Your task to perform on an android device: open app "Pandora - Music & Podcasts" Image 0: 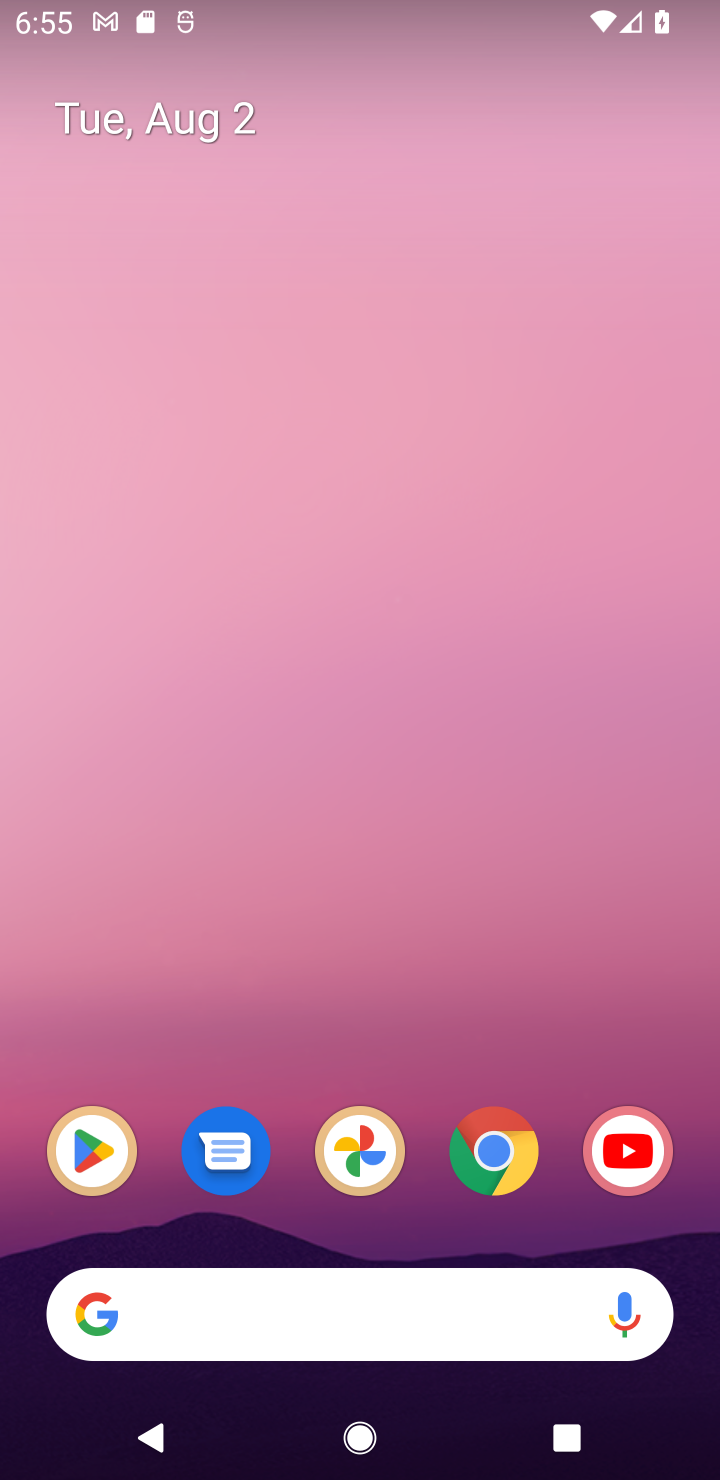
Step 0: click (114, 1134)
Your task to perform on an android device: open app "Pandora - Music & Podcasts" Image 1: 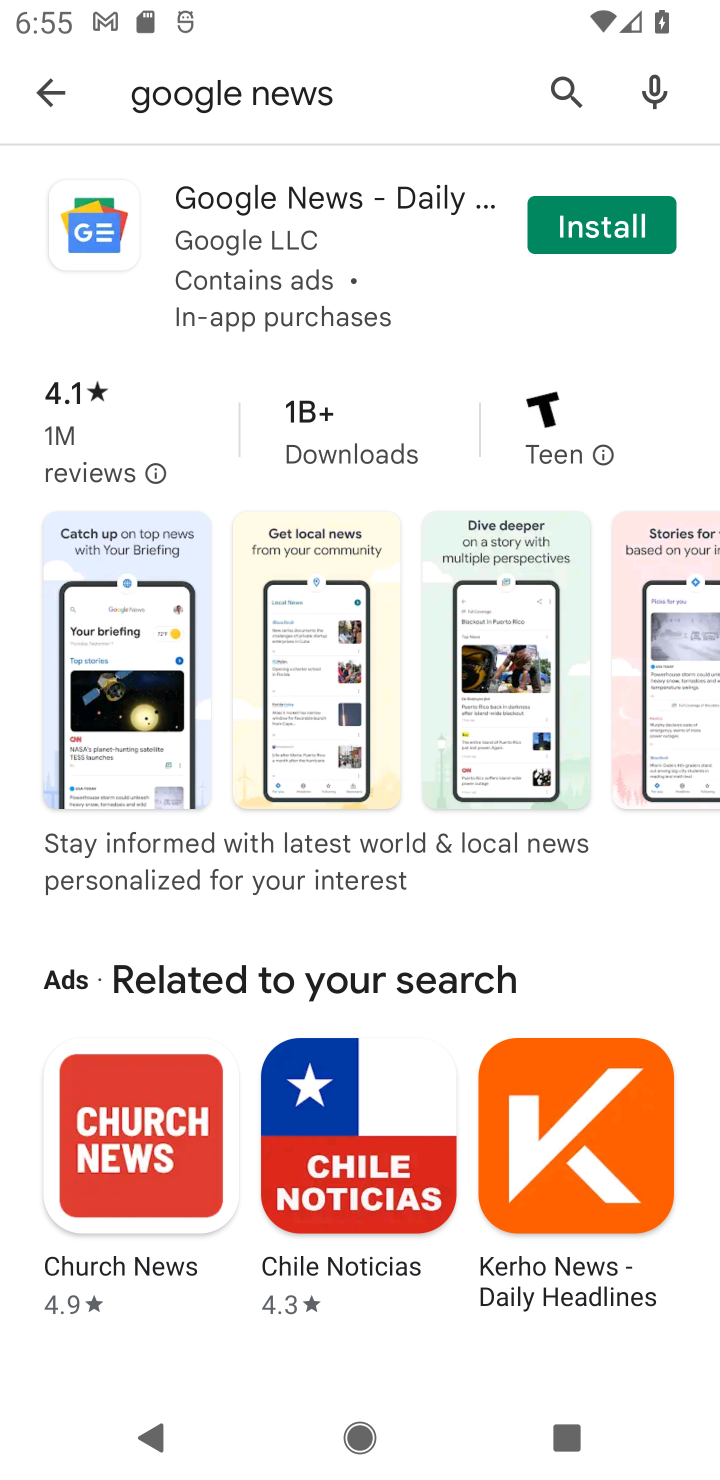
Step 1: click (618, 87)
Your task to perform on an android device: open app "Pandora - Music & Podcasts" Image 2: 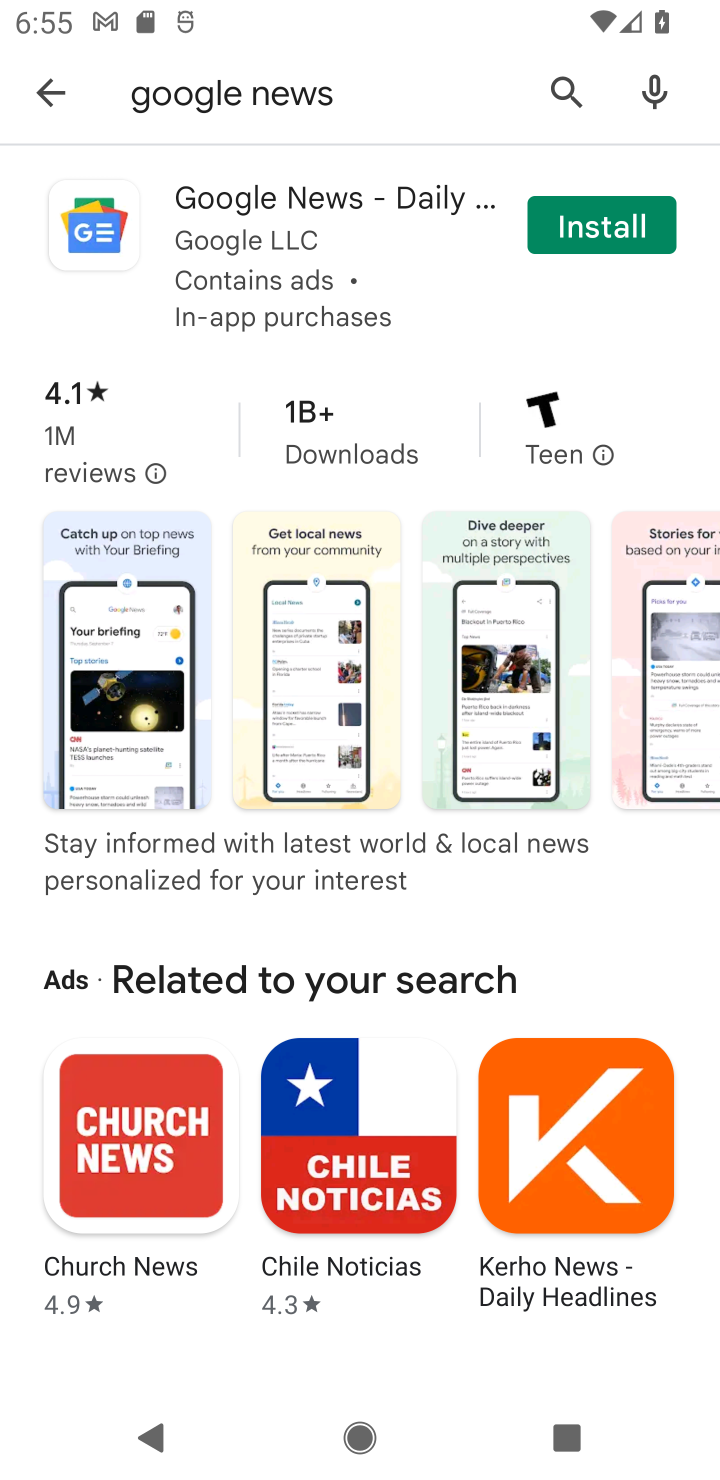
Step 2: click (572, 77)
Your task to perform on an android device: open app "Pandora - Music & Podcasts" Image 3: 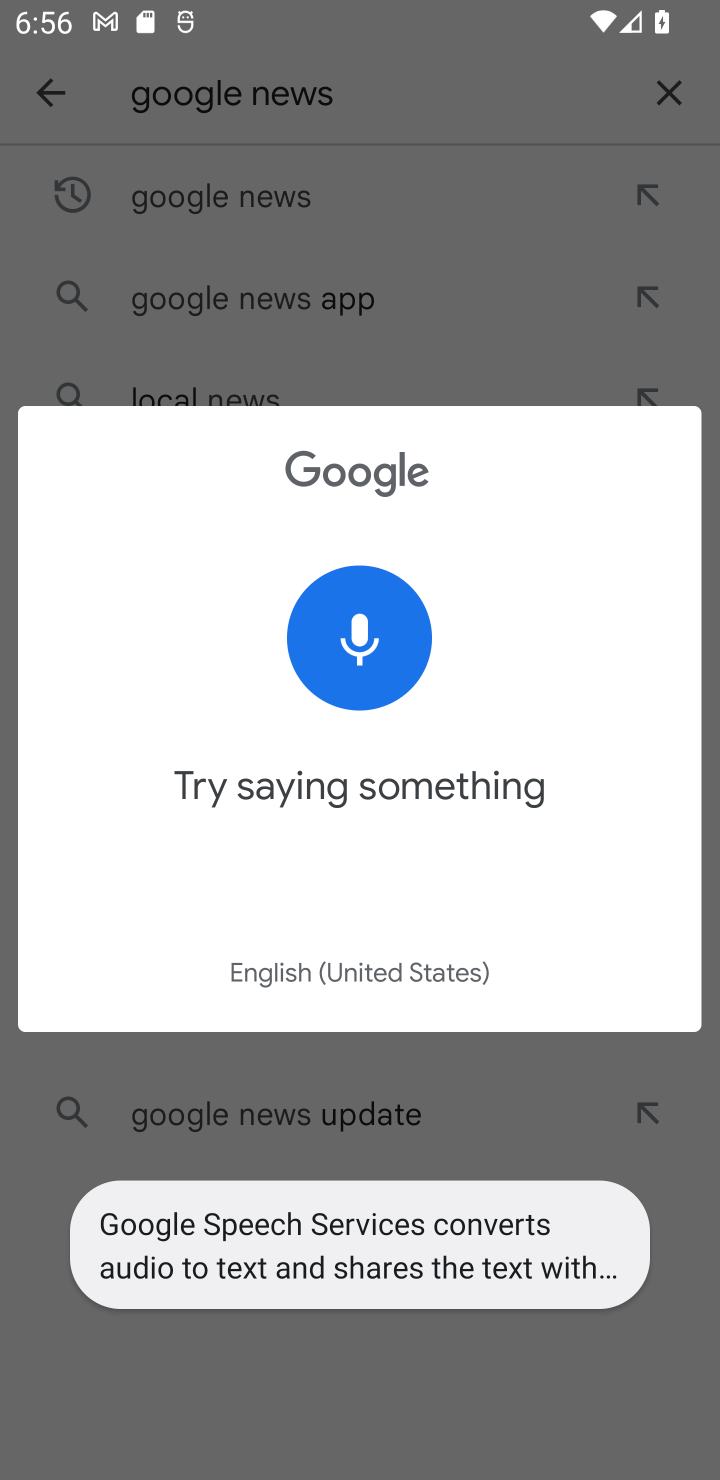
Step 3: click (651, 106)
Your task to perform on an android device: open app "Pandora - Music & Podcasts" Image 4: 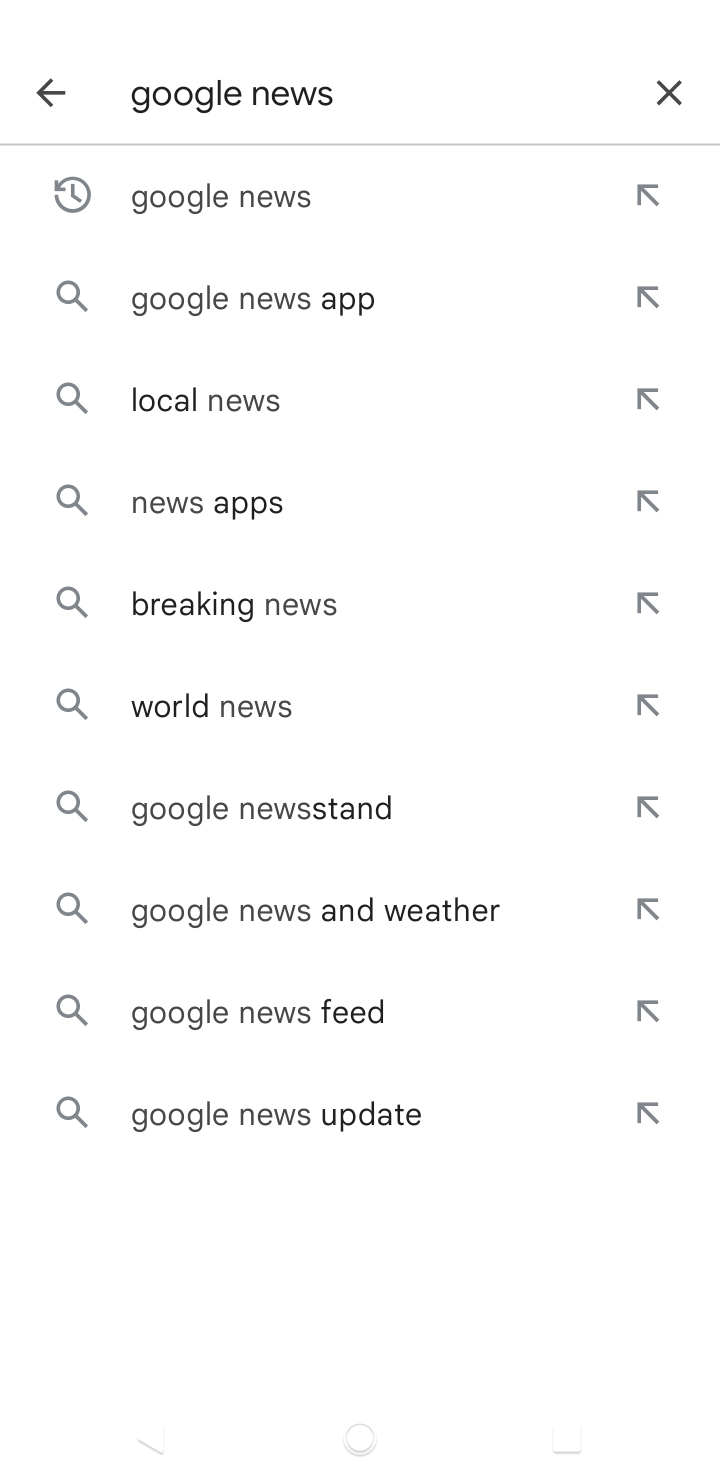
Step 4: click (665, 100)
Your task to perform on an android device: open app "Pandora - Music & Podcasts" Image 5: 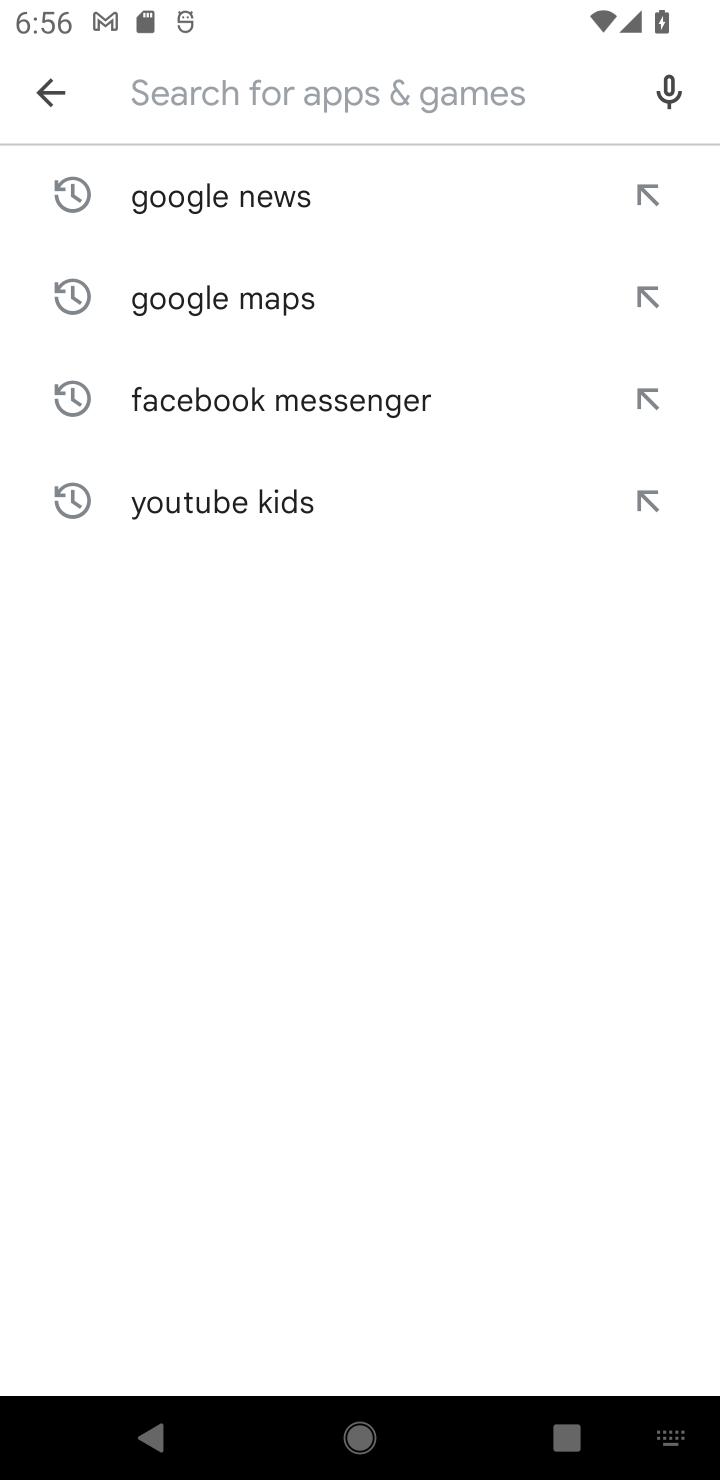
Step 5: type "Pandora - Music & Podcasts"
Your task to perform on an android device: open app "Pandora - Music & Podcasts" Image 6: 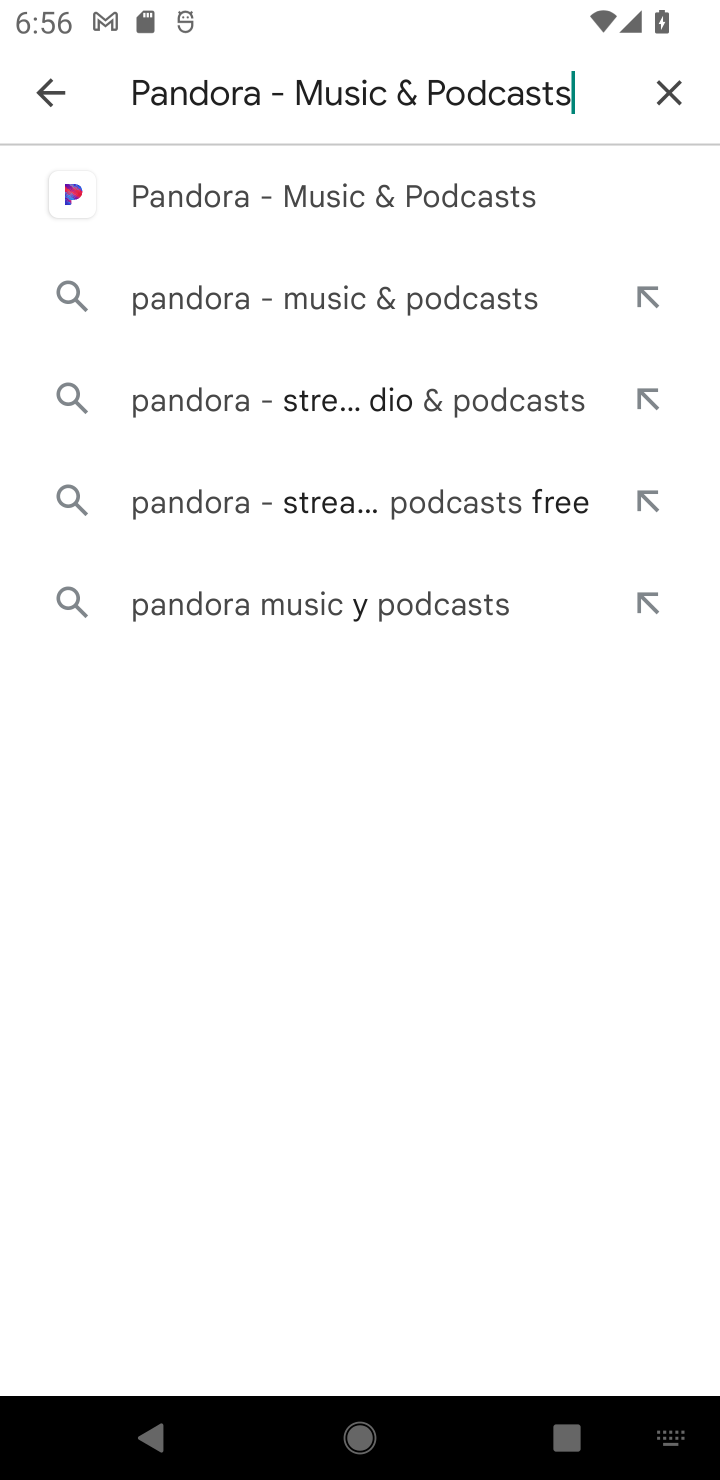
Step 6: click (450, 190)
Your task to perform on an android device: open app "Pandora - Music & Podcasts" Image 7: 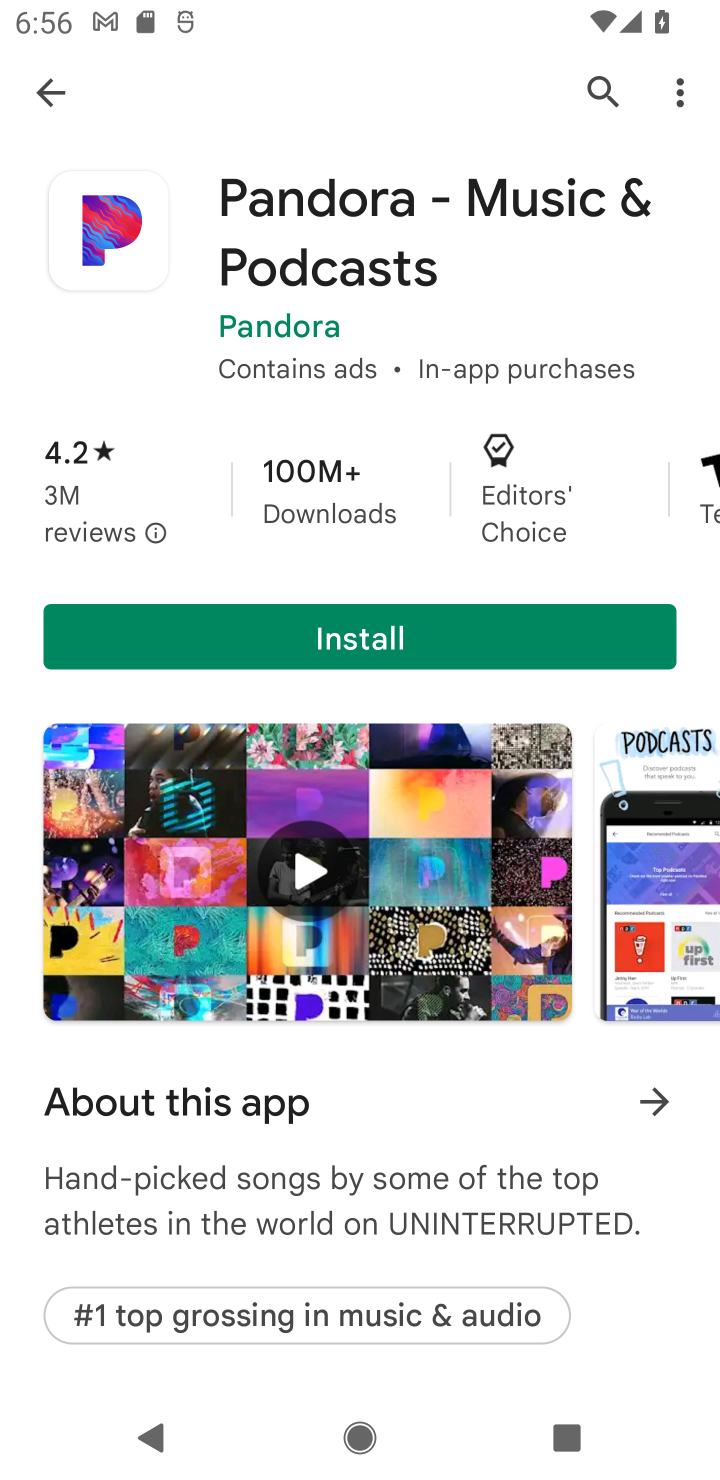
Step 7: task complete